Your task to perform on an android device: turn pop-ups off in chrome Image 0: 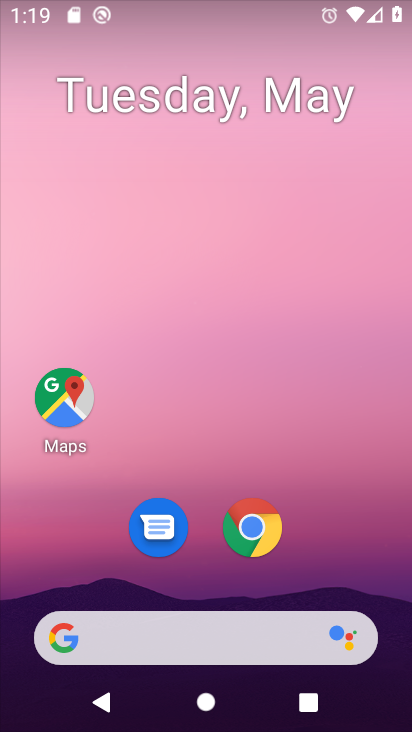
Step 0: click (263, 509)
Your task to perform on an android device: turn pop-ups off in chrome Image 1: 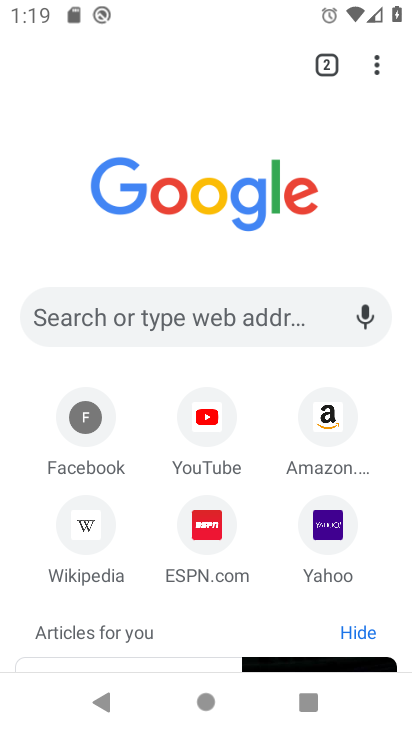
Step 1: click (379, 74)
Your task to perform on an android device: turn pop-ups off in chrome Image 2: 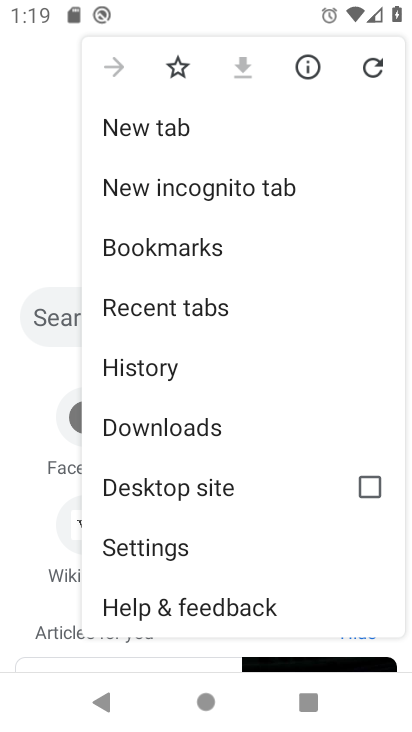
Step 2: click (198, 544)
Your task to perform on an android device: turn pop-ups off in chrome Image 3: 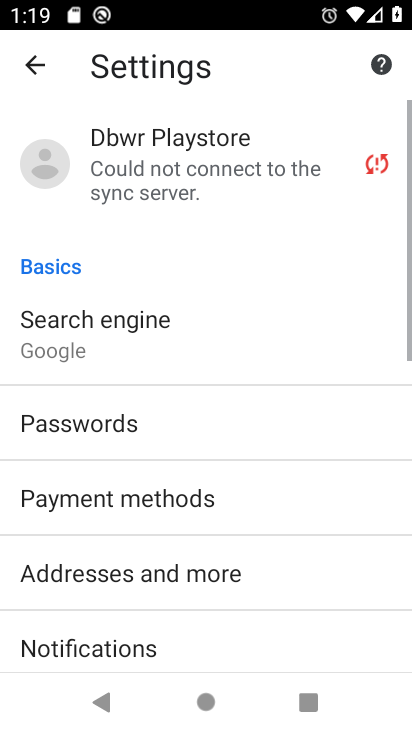
Step 3: drag from (212, 576) to (281, 1)
Your task to perform on an android device: turn pop-ups off in chrome Image 4: 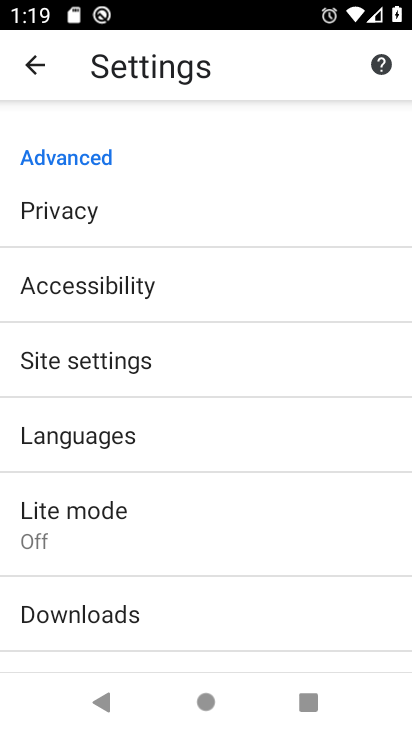
Step 4: click (113, 341)
Your task to perform on an android device: turn pop-ups off in chrome Image 5: 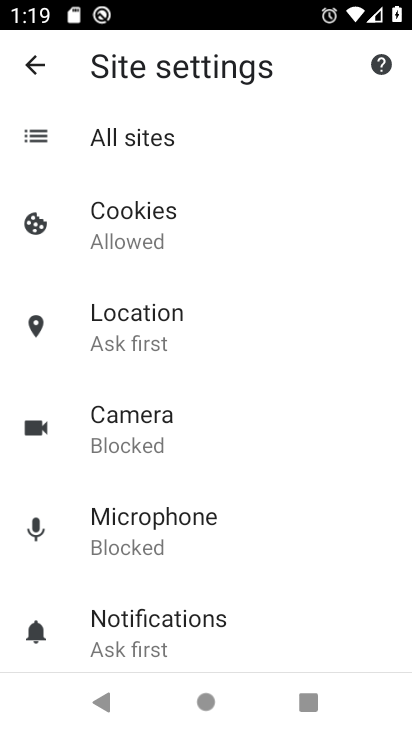
Step 5: drag from (225, 547) to (298, 80)
Your task to perform on an android device: turn pop-ups off in chrome Image 6: 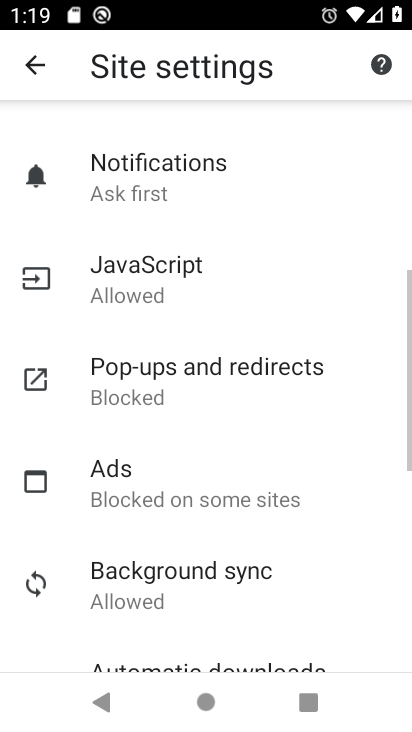
Step 6: click (206, 372)
Your task to perform on an android device: turn pop-ups off in chrome Image 7: 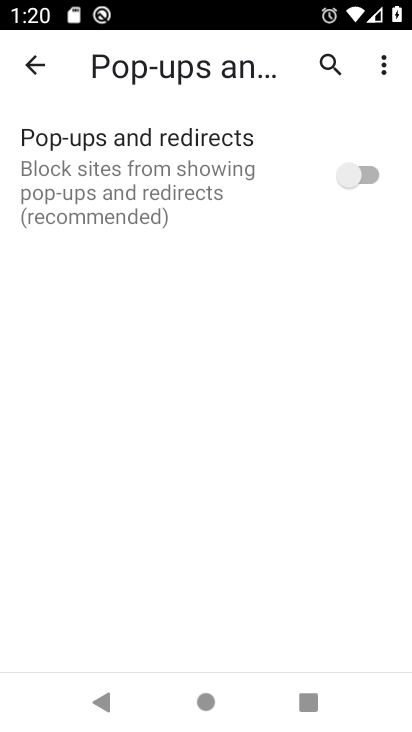
Step 7: task complete